Your task to perform on an android device: Open Google Maps and go to "Timeline" Image 0: 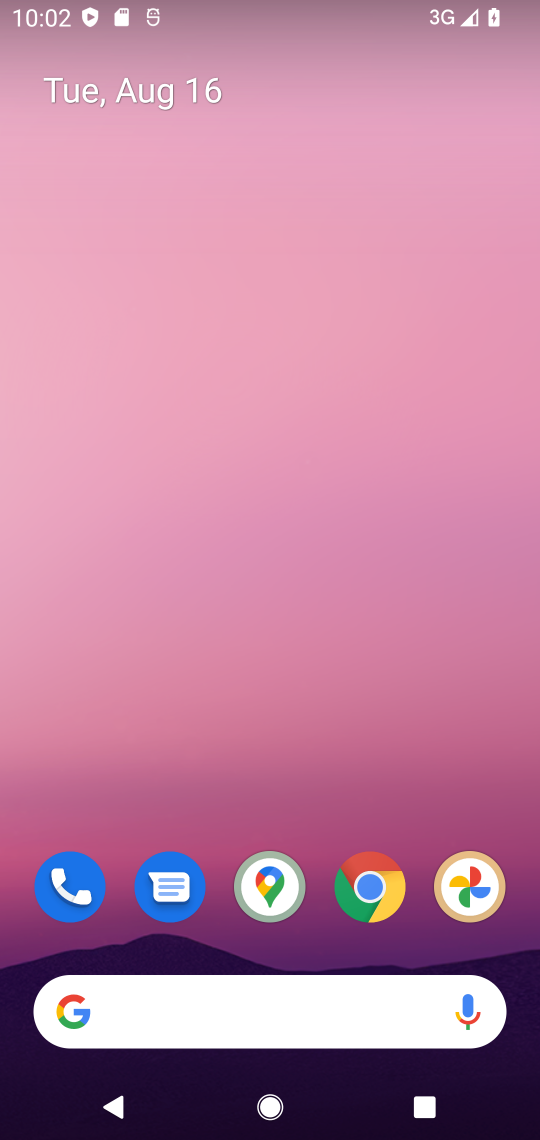
Step 0: press home button
Your task to perform on an android device: Open Google Maps and go to "Timeline" Image 1: 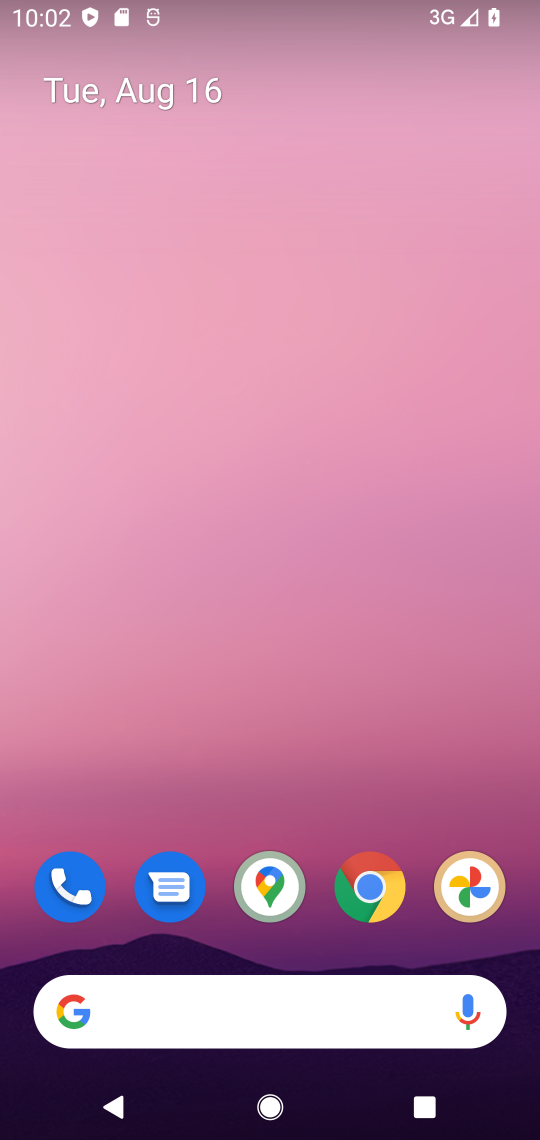
Step 1: drag from (417, 839) to (449, 124)
Your task to perform on an android device: Open Google Maps and go to "Timeline" Image 2: 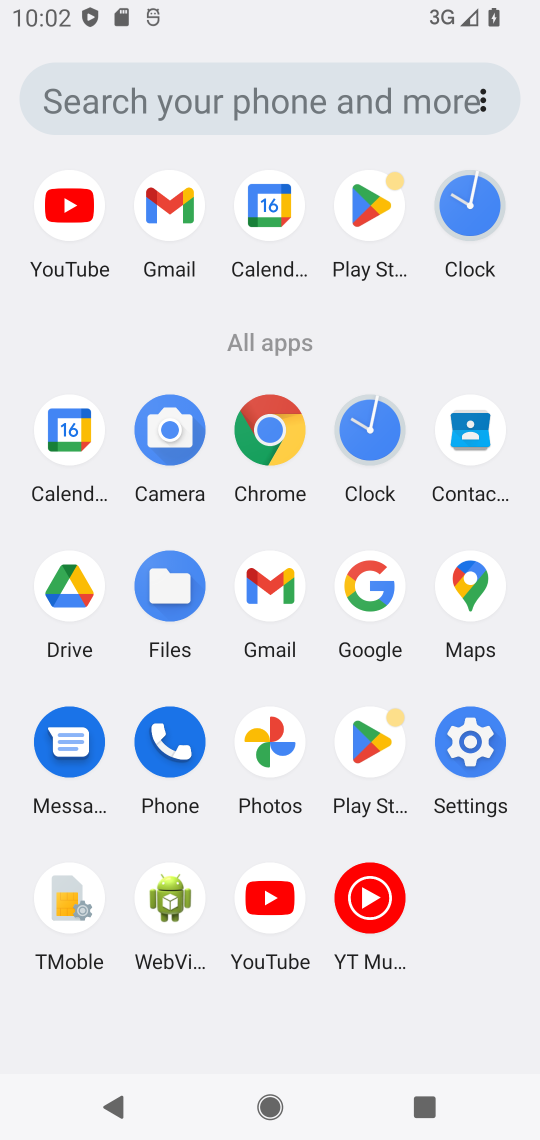
Step 2: click (478, 592)
Your task to perform on an android device: Open Google Maps and go to "Timeline" Image 3: 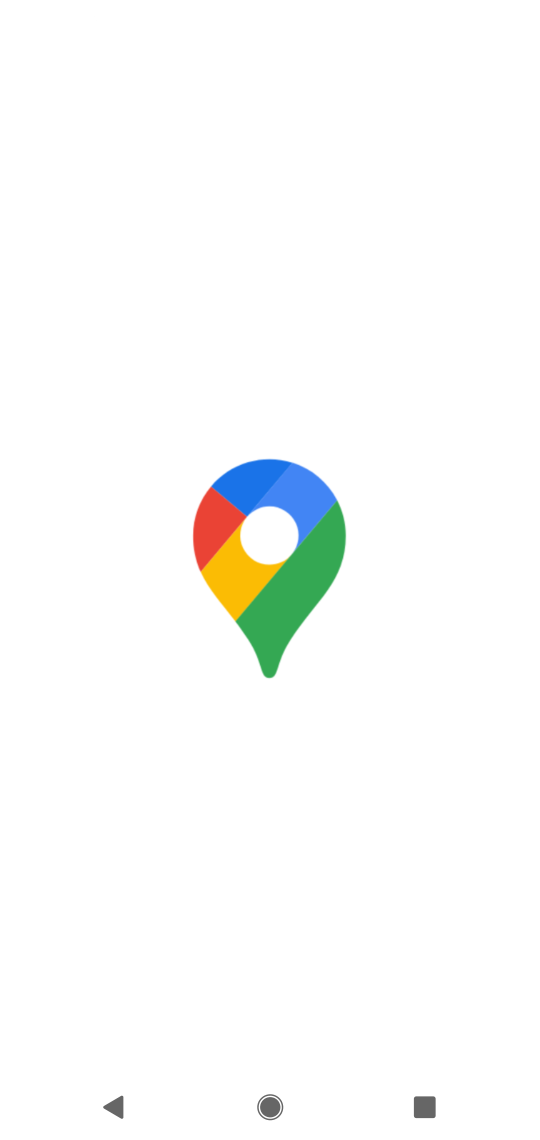
Step 3: task complete